Your task to perform on an android device: show emergency info Image 0: 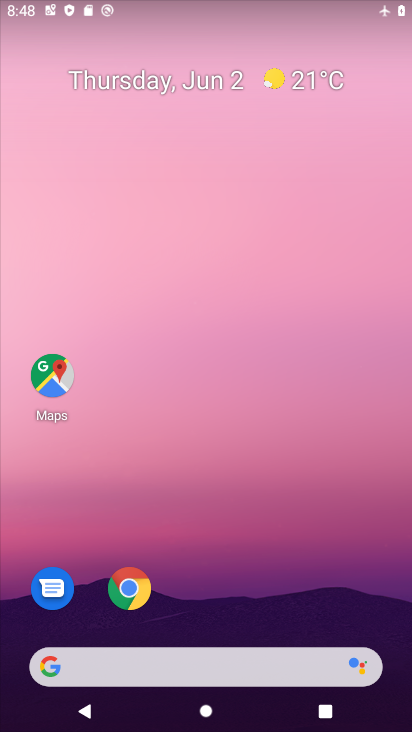
Step 0: drag from (192, 662) to (165, 11)
Your task to perform on an android device: show emergency info Image 1: 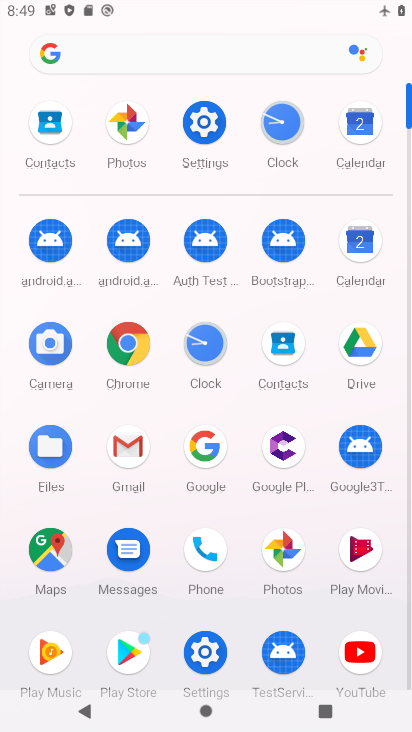
Step 1: click (200, 117)
Your task to perform on an android device: show emergency info Image 2: 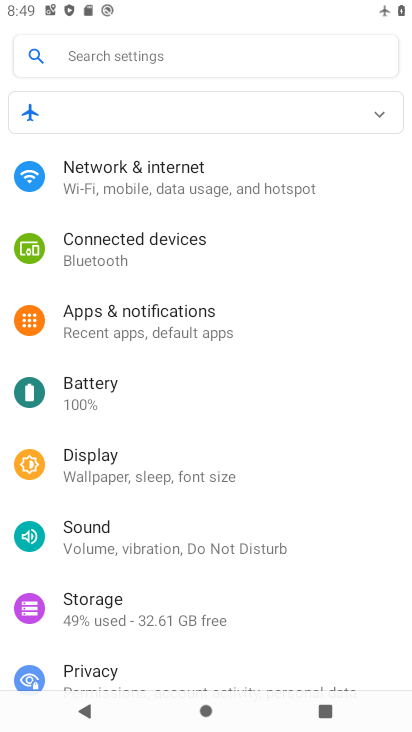
Step 2: drag from (255, 560) to (198, 43)
Your task to perform on an android device: show emergency info Image 3: 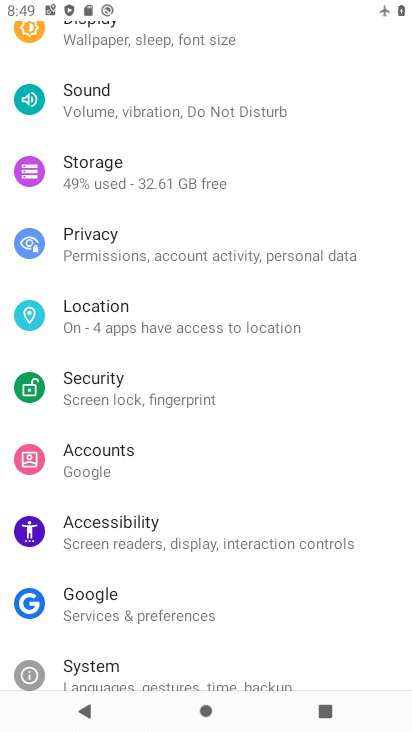
Step 3: drag from (90, 678) to (94, 266)
Your task to perform on an android device: show emergency info Image 4: 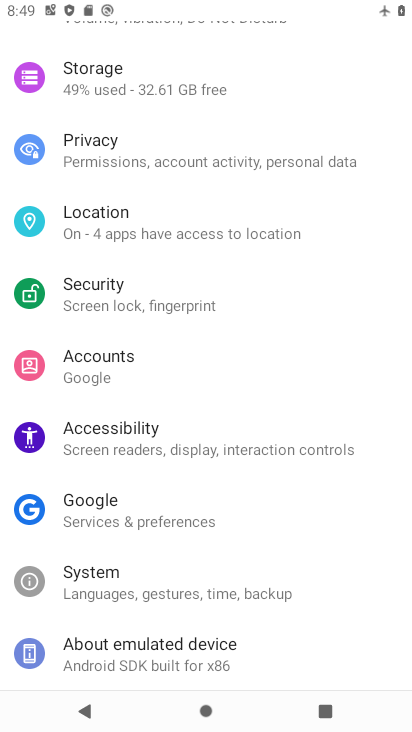
Step 4: click (110, 656)
Your task to perform on an android device: show emergency info Image 5: 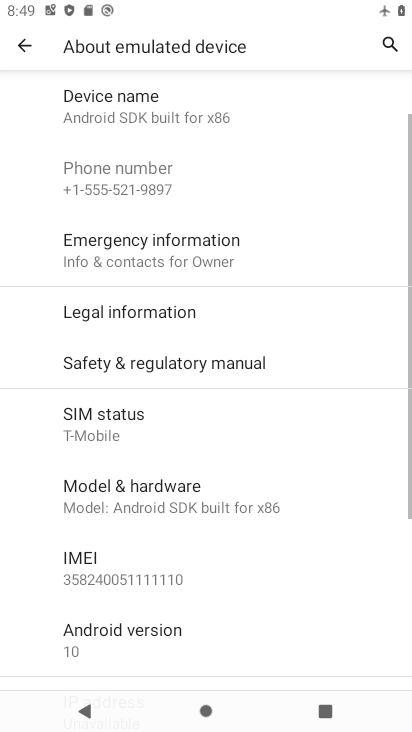
Step 5: click (171, 256)
Your task to perform on an android device: show emergency info Image 6: 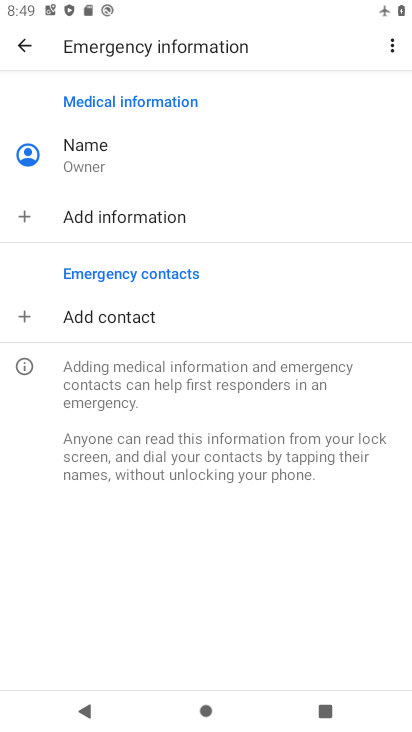
Step 6: task complete